Your task to perform on an android device: turn pop-ups off in chrome Image 0: 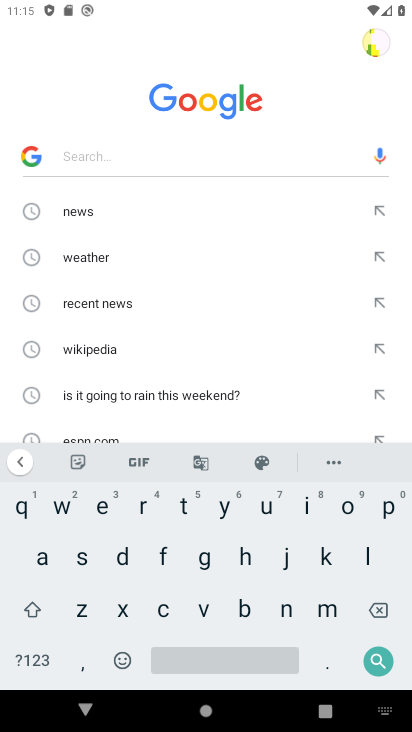
Step 0: press home button
Your task to perform on an android device: turn pop-ups off in chrome Image 1: 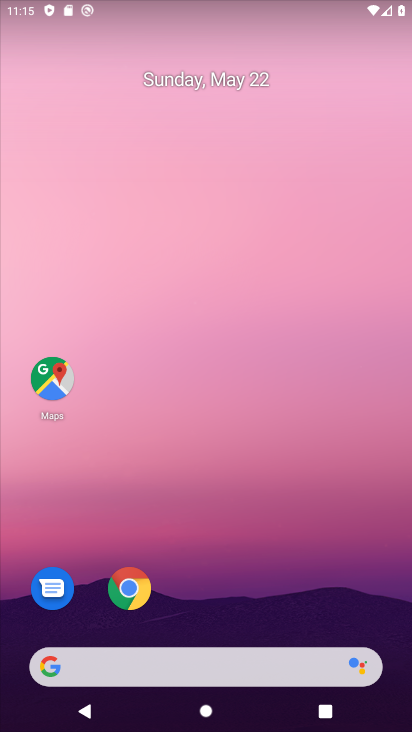
Step 1: click (137, 582)
Your task to perform on an android device: turn pop-ups off in chrome Image 2: 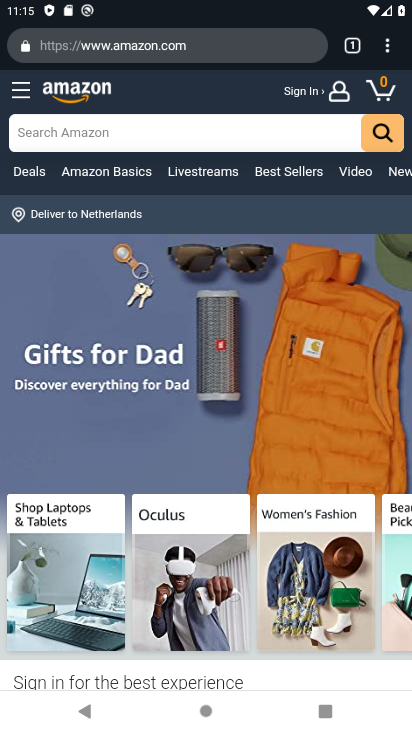
Step 2: click (385, 45)
Your task to perform on an android device: turn pop-ups off in chrome Image 3: 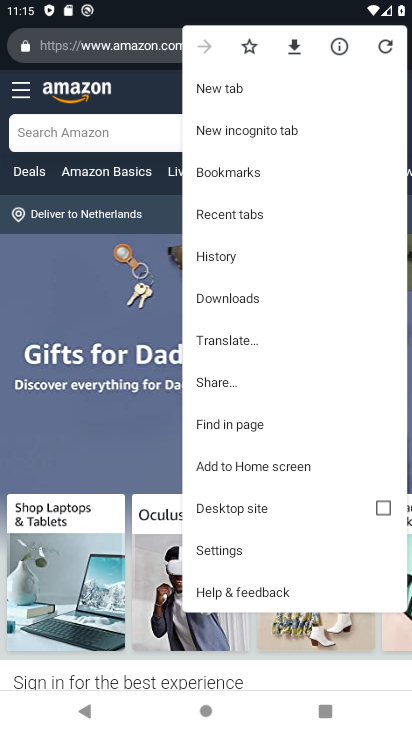
Step 3: click (217, 541)
Your task to perform on an android device: turn pop-ups off in chrome Image 4: 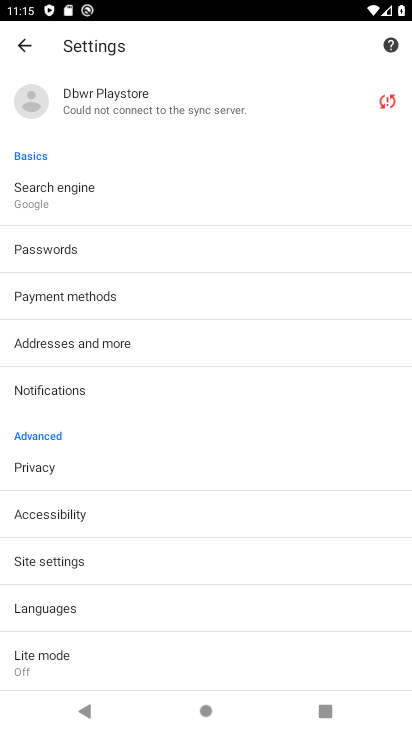
Step 4: click (54, 561)
Your task to perform on an android device: turn pop-ups off in chrome Image 5: 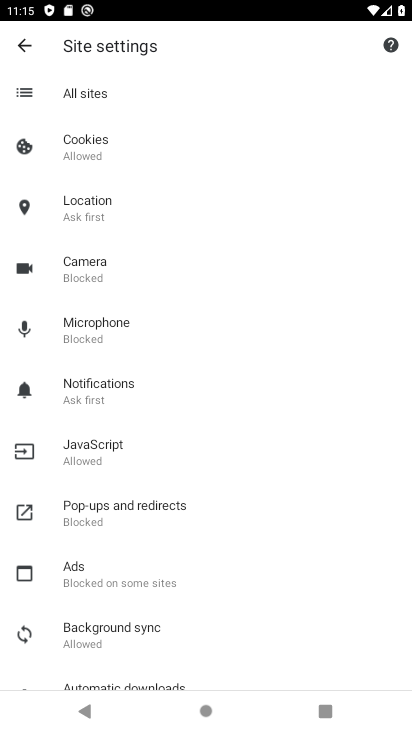
Step 5: click (108, 513)
Your task to perform on an android device: turn pop-ups off in chrome Image 6: 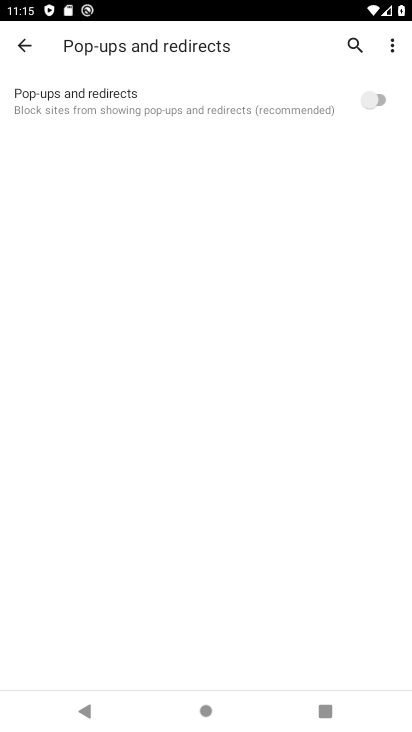
Step 6: click (380, 100)
Your task to perform on an android device: turn pop-ups off in chrome Image 7: 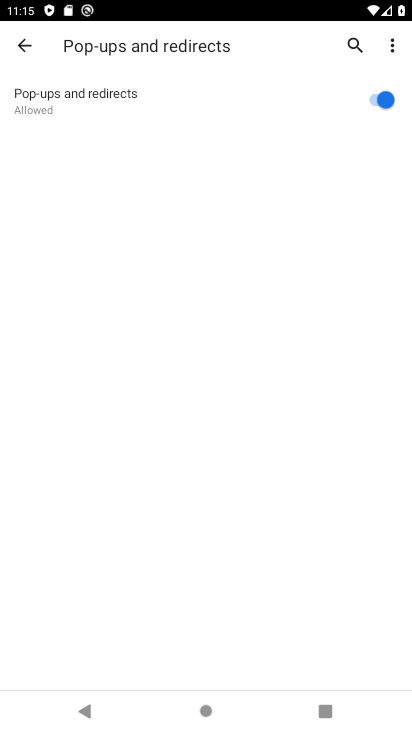
Step 7: click (380, 100)
Your task to perform on an android device: turn pop-ups off in chrome Image 8: 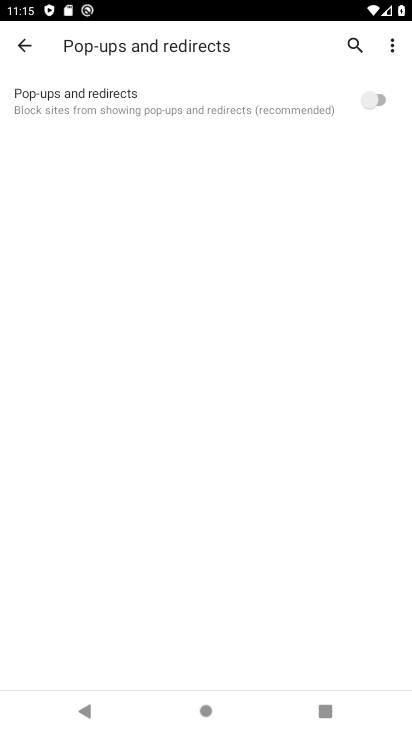
Step 8: task complete